Your task to perform on an android device: change your default location settings in chrome Image 0: 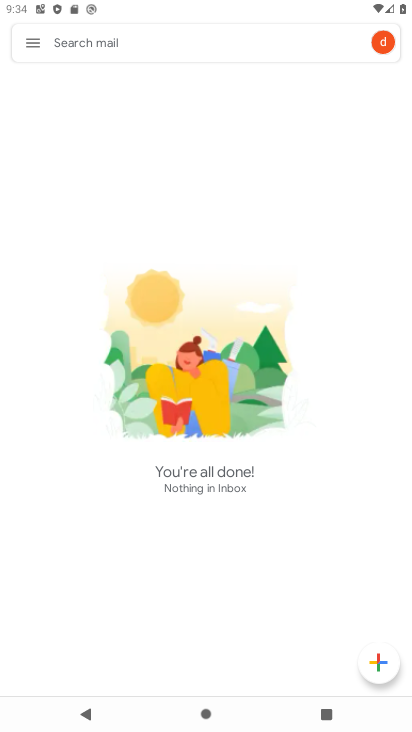
Step 0: task complete